Your task to perform on an android device: Go to eBay Image 0: 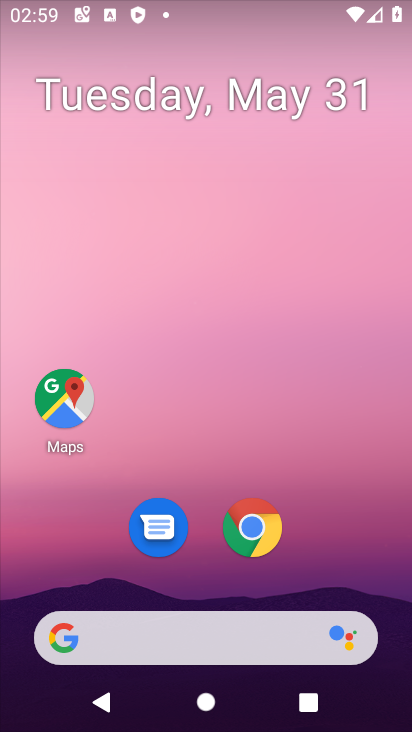
Step 0: click (251, 524)
Your task to perform on an android device: Go to eBay Image 1: 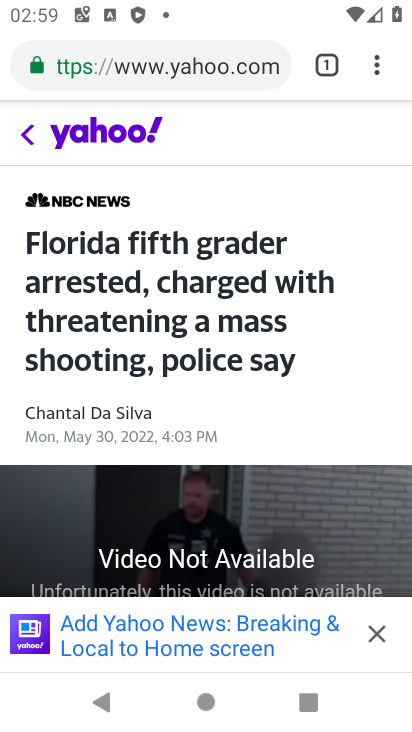
Step 1: click (281, 67)
Your task to perform on an android device: Go to eBay Image 2: 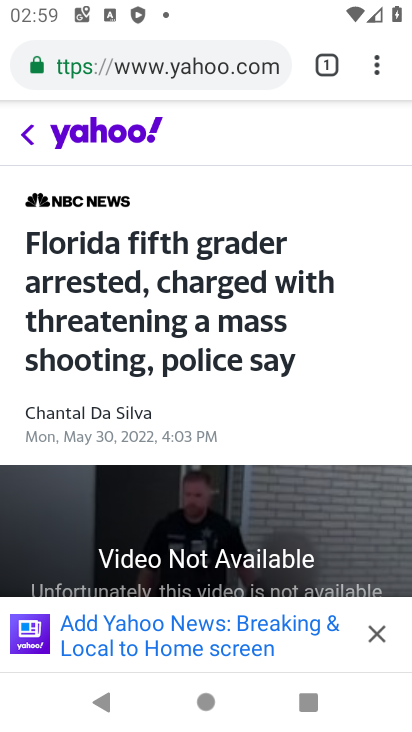
Step 2: click (261, 49)
Your task to perform on an android device: Go to eBay Image 3: 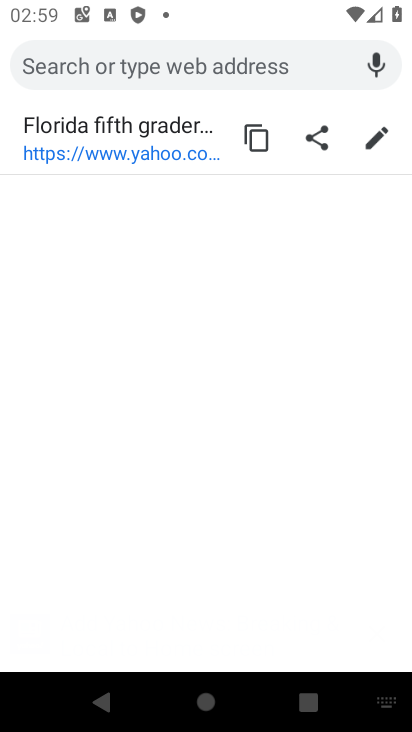
Step 3: type "ebay"
Your task to perform on an android device: Go to eBay Image 4: 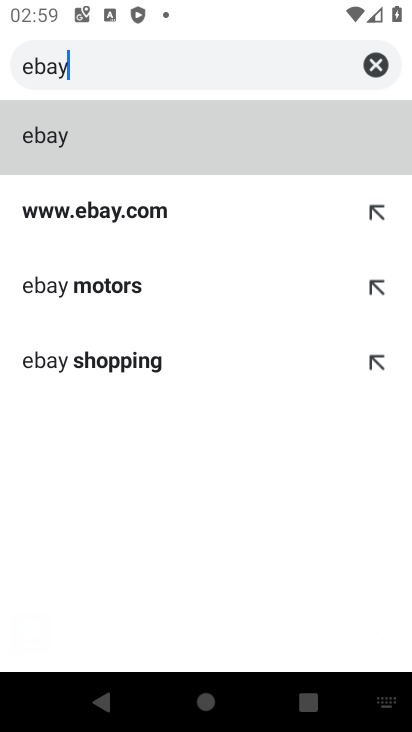
Step 4: click (66, 135)
Your task to perform on an android device: Go to eBay Image 5: 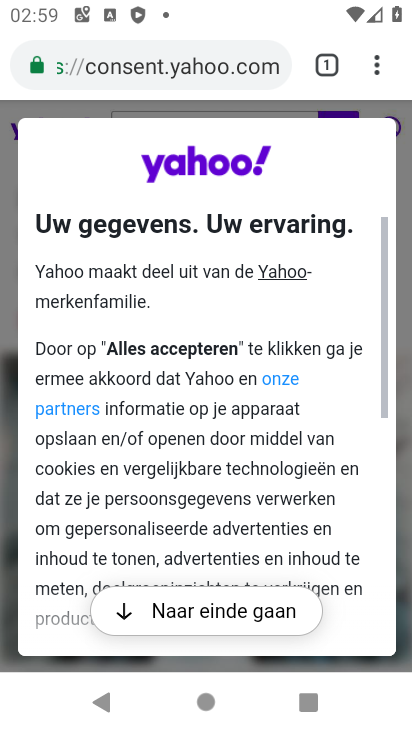
Step 5: drag from (273, 551) to (265, 329)
Your task to perform on an android device: Go to eBay Image 6: 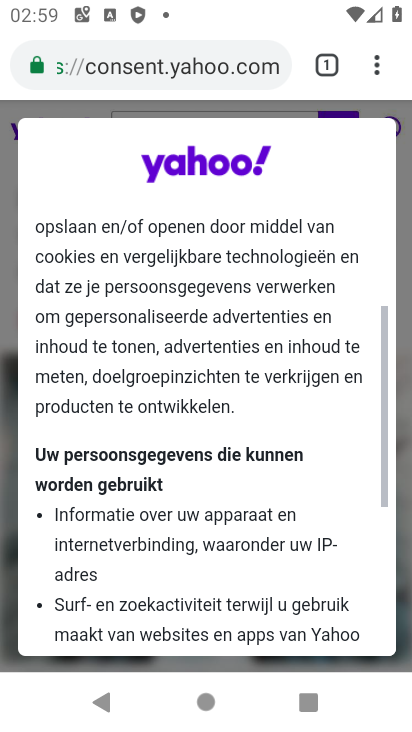
Step 6: drag from (210, 604) to (176, 182)
Your task to perform on an android device: Go to eBay Image 7: 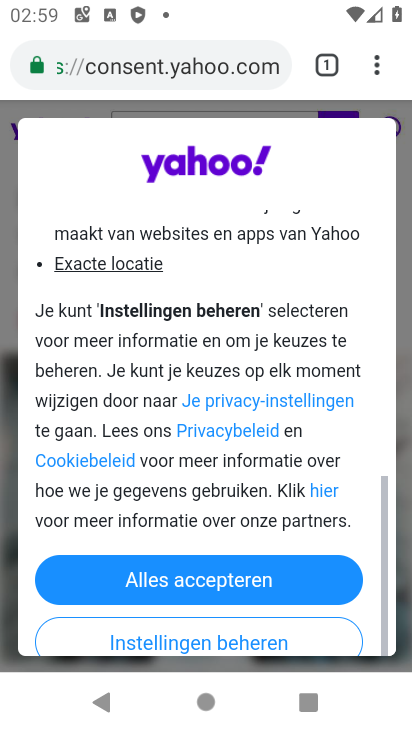
Step 7: click (189, 580)
Your task to perform on an android device: Go to eBay Image 8: 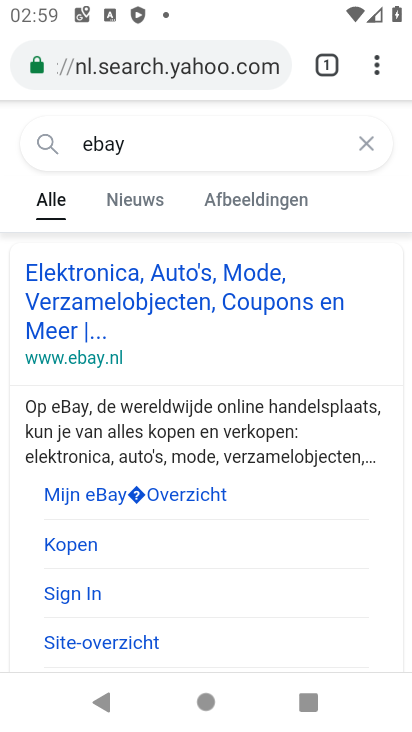
Step 8: click (52, 328)
Your task to perform on an android device: Go to eBay Image 9: 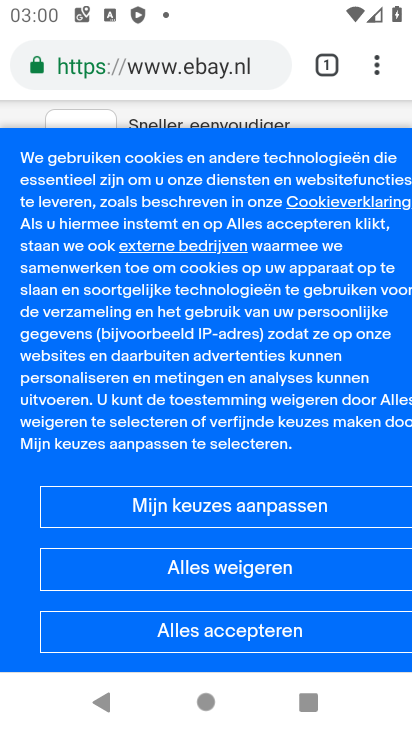
Step 9: task complete